Your task to perform on an android device: turn on data saver in the chrome app Image 0: 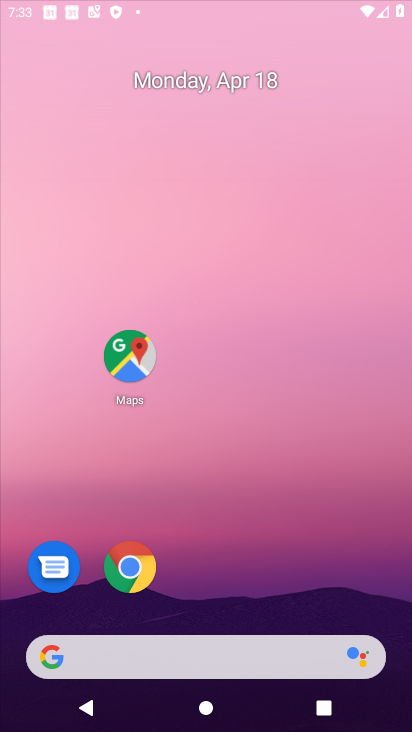
Step 0: click (287, 260)
Your task to perform on an android device: turn on data saver in the chrome app Image 1: 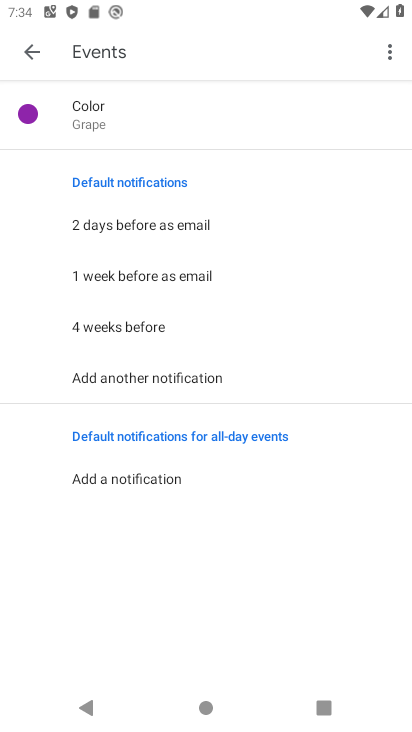
Step 1: press home button
Your task to perform on an android device: turn on data saver in the chrome app Image 2: 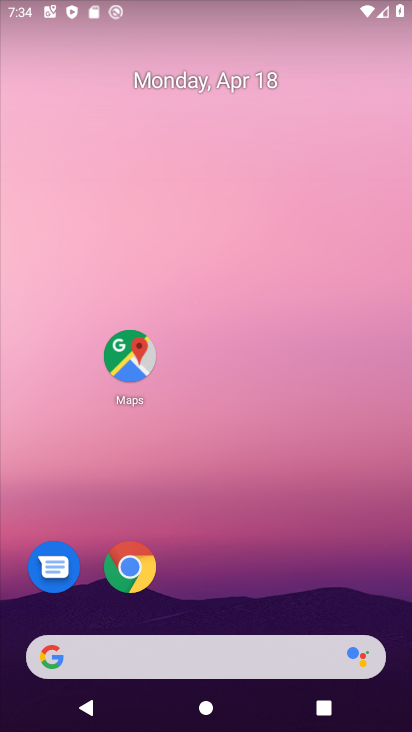
Step 2: click (147, 563)
Your task to perform on an android device: turn on data saver in the chrome app Image 3: 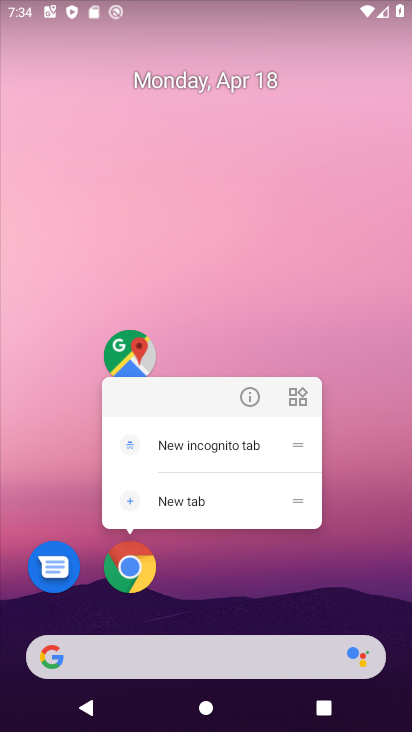
Step 3: click (170, 570)
Your task to perform on an android device: turn on data saver in the chrome app Image 4: 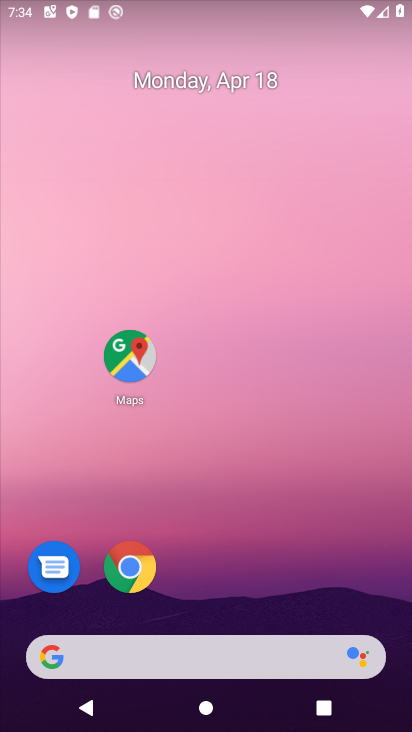
Step 4: click (127, 571)
Your task to perform on an android device: turn on data saver in the chrome app Image 5: 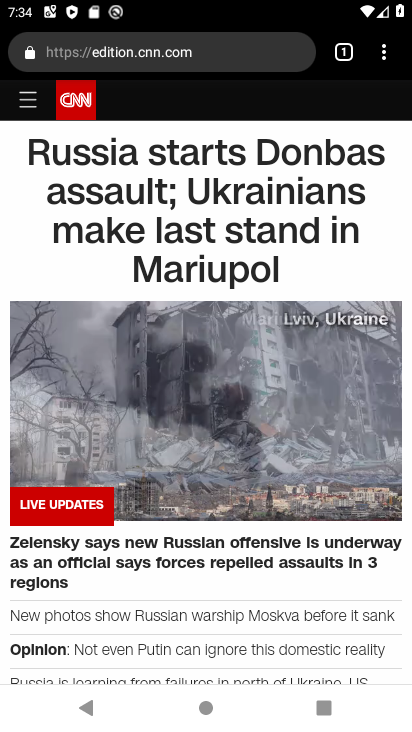
Step 5: click (387, 55)
Your task to perform on an android device: turn on data saver in the chrome app Image 6: 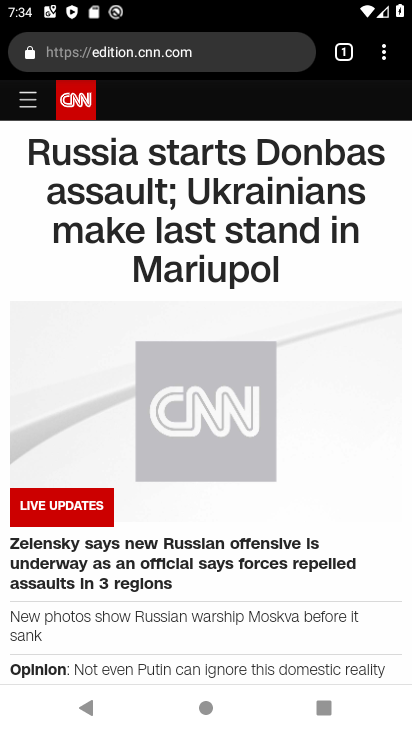
Step 6: click (386, 60)
Your task to perform on an android device: turn on data saver in the chrome app Image 7: 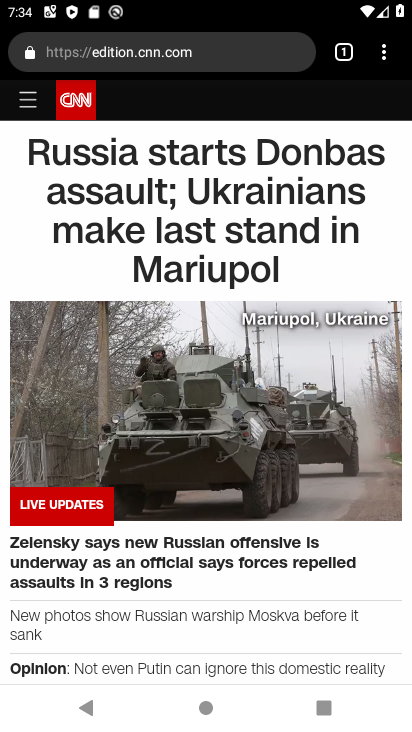
Step 7: click (383, 61)
Your task to perform on an android device: turn on data saver in the chrome app Image 8: 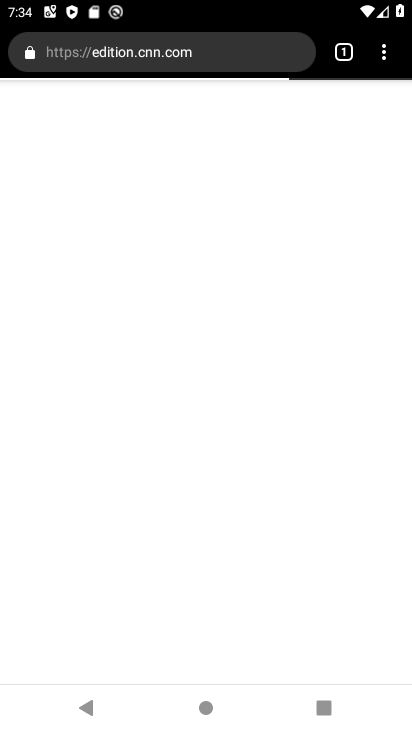
Step 8: click (382, 50)
Your task to perform on an android device: turn on data saver in the chrome app Image 9: 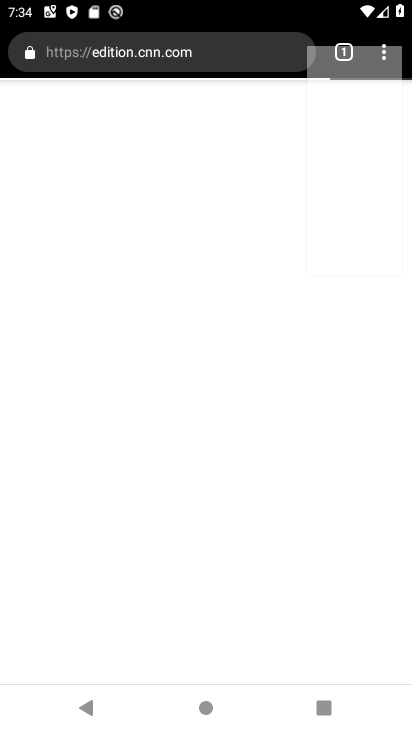
Step 9: click (382, 47)
Your task to perform on an android device: turn on data saver in the chrome app Image 10: 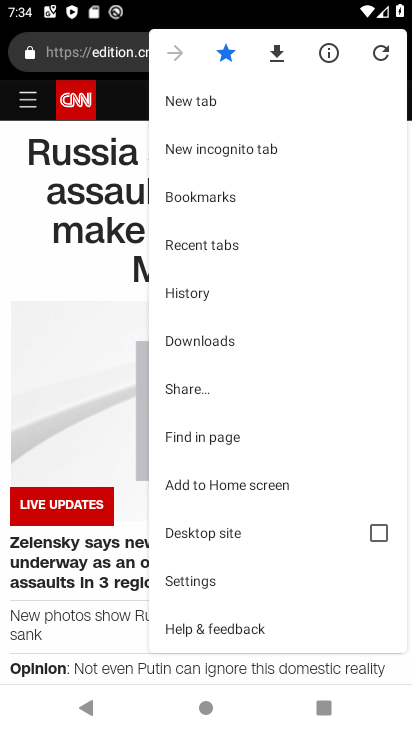
Step 10: click (382, 47)
Your task to perform on an android device: turn on data saver in the chrome app Image 11: 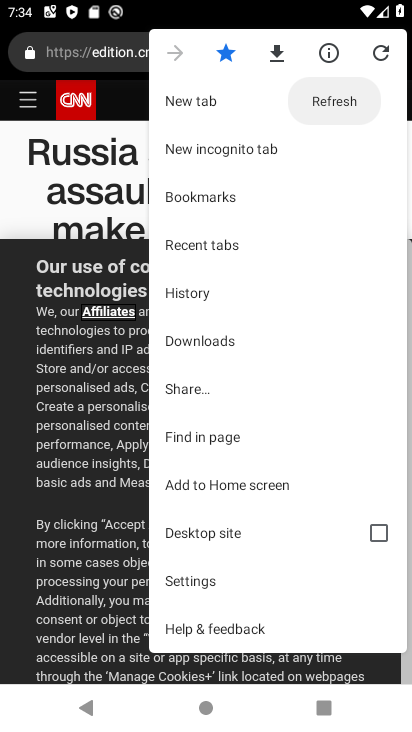
Step 11: click (190, 578)
Your task to perform on an android device: turn on data saver in the chrome app Image 12: 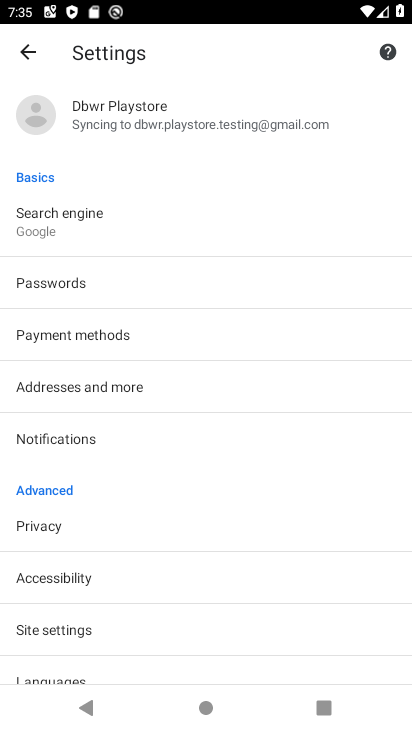
Step 12: drag from (122, 607) to (177, 446)
Your task to perform on an android device: turn on data saver in the chrome app Image 13: 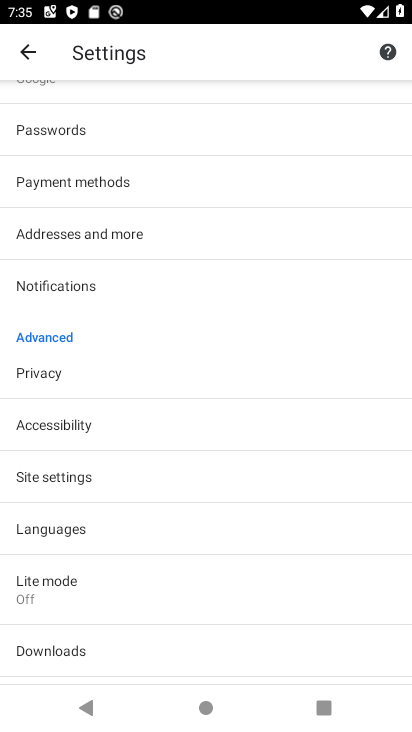
Step 13: click (79, 593)
Your task to perform on an android device: turn on data saver in the chrome app Image 14: 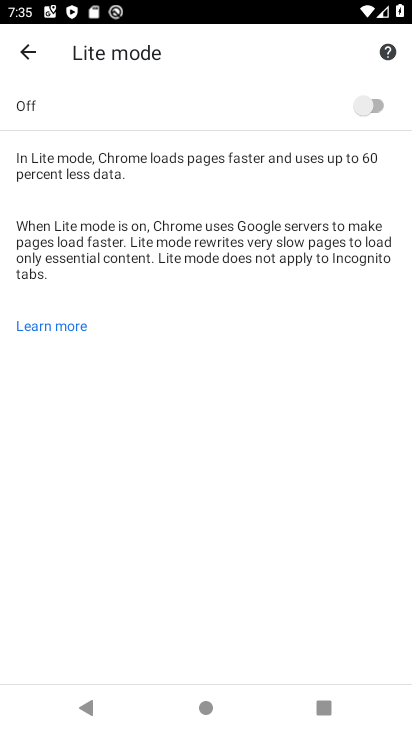
Step 14: click (369, 114)
Your task to perform on an android device: turn on data saver in the chrome app Image 15: 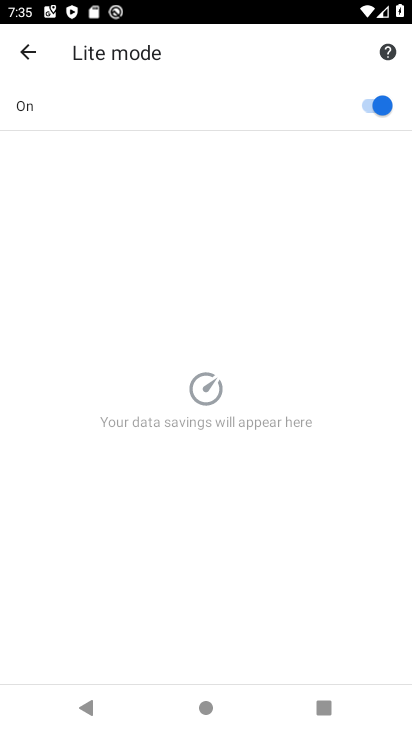
Step 15: task complete